Your task to perform on an android device: add a label to a message in the gmail app Image 0: 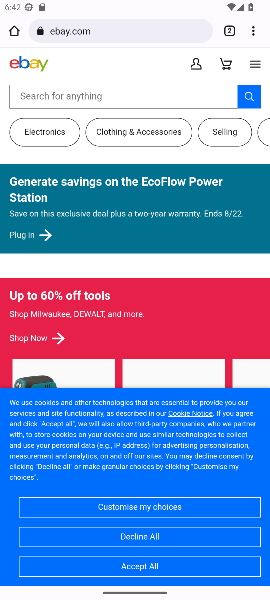
Step 0: press home button
Your task to perform on an android device: add a label to a message in the gmail app Image 1: 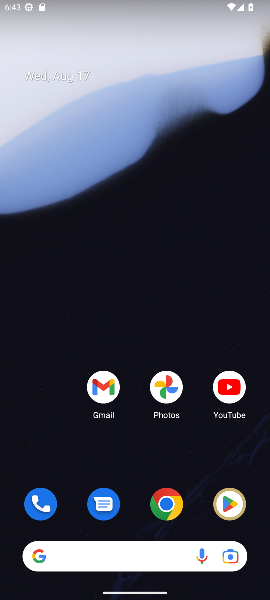
Step 1: drag from (159, 459) to (162, 20)
Your task to perform on an android device: add a label to a message in the gmail app Image 2: 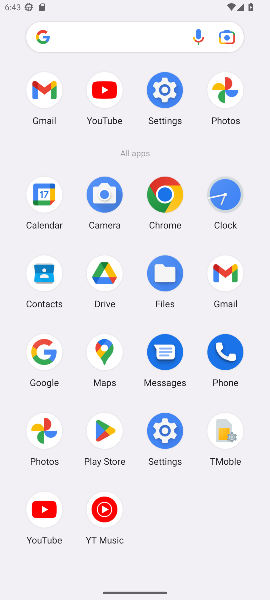
Step 2: click (231, 283)
Your task to perform on an android device: add a label to a message in the gmail app Image 3: 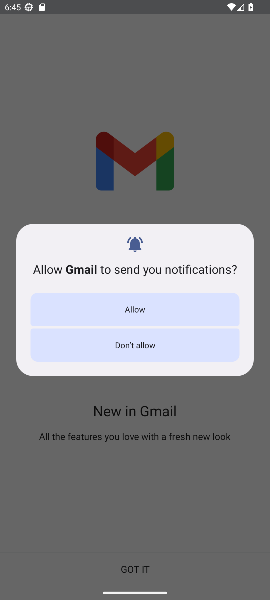
Step 3: click (154, 309)
Your task to perform on an android device: add a label to a message in the gmail app Image 4: 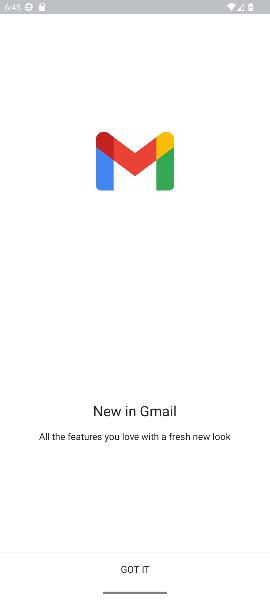
Step 4: click (140, 563)
Your task to perform on an android device: add a label to a message in the gmail app Image 5: 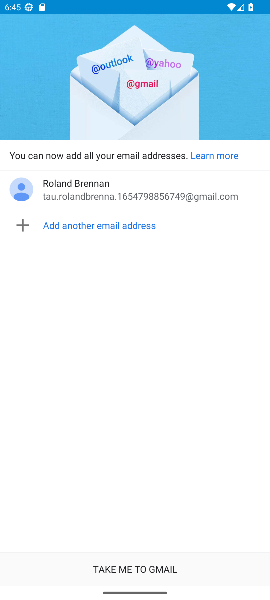
Step 5: click (157, 564)
Your task to perform on an android device: add a label to a message in the gmail app Image 6: 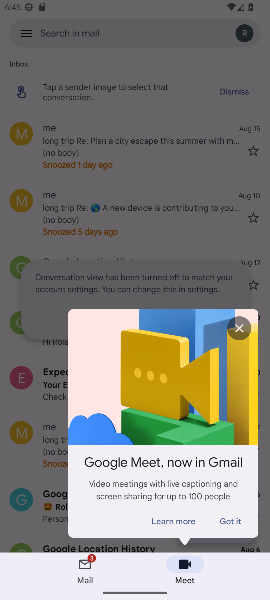
Step 6: click (228, 526)
Your task to perform on an android device: add a label to a message in the gmail app Image 7: 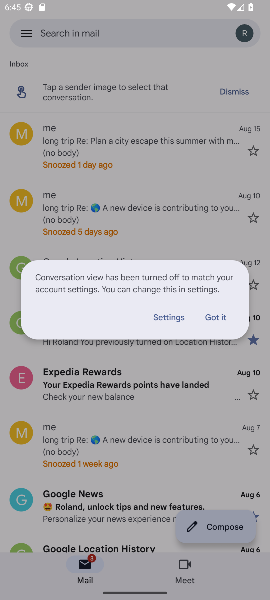
Step 7: click (213, 320)
Your task to perform on an android device: add a label to a message in the gmail app Image 8: 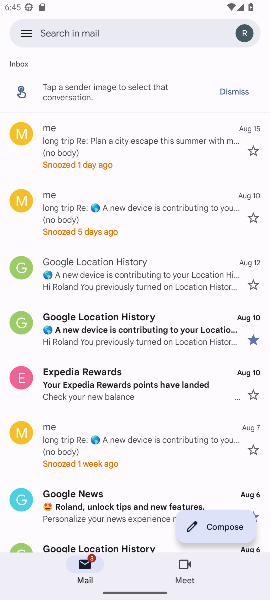
Step 8: click (143, 236)
Your task to perform on an android device: add a label to a message in the gmail app Image 9: 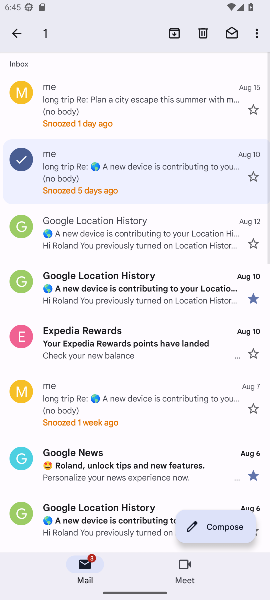
Step 9: click (255, 29)
Your task to perform on an android device: add a label to a message in the gmail app Image 10: 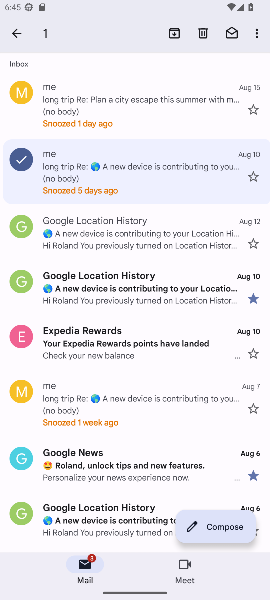
Step 10: click (260, 37)
Your task to perform on an android device: add a label to a message in the gmail app Image 11: 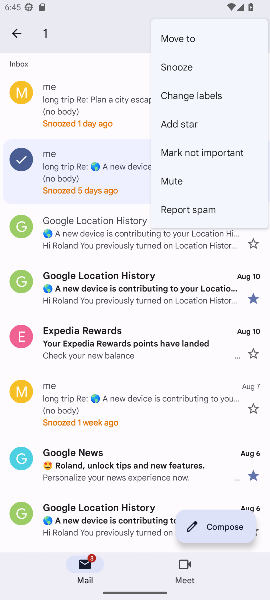
Step 11: click (227, 99)
Your task to perform on an android device: add a label to a message in the gmail app Image 12: 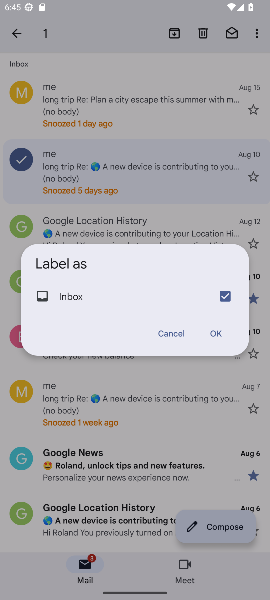
Step 12: click (227, 303)
Your task to perform on an android device: add a label to a message in the gmail app Image 13: 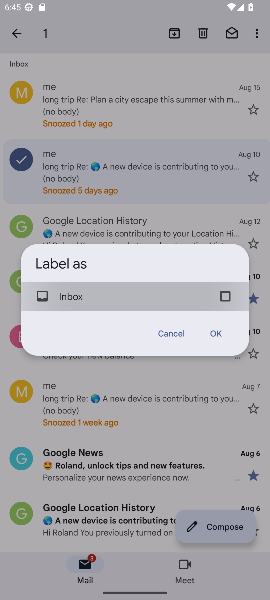
Step 13: click (223, 337)
Your task to perform on an android device: add a label to a message in the gmail app Image 14: 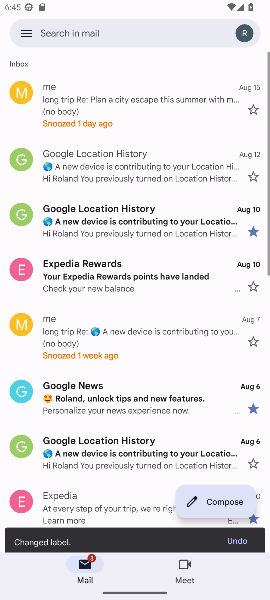
Step 14: task complete